Your task to perform on an android device: set an alarm Image 0: 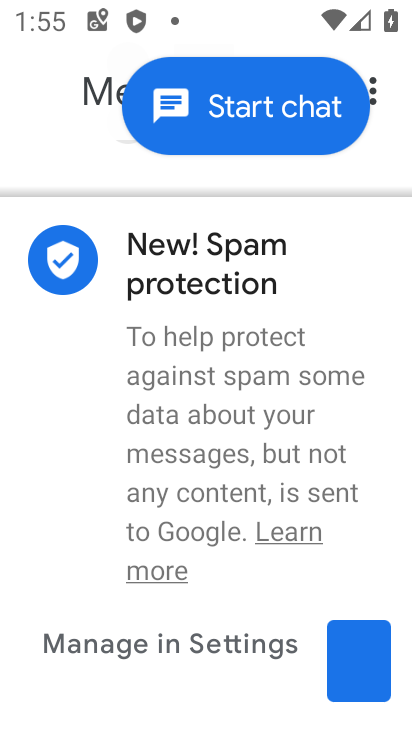
Step 0: press home button
Your task to perform on an android device: set an alarm Image 1: 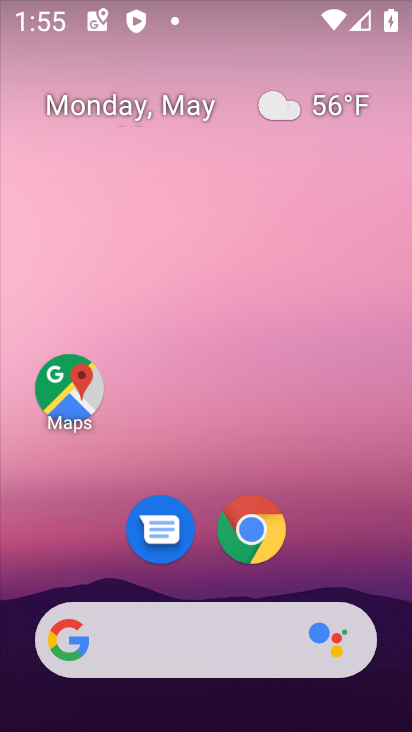
Step 1: drag from (333, 546) to (383, 77)
Your task to perform on an android device: set an alarm Image 2: 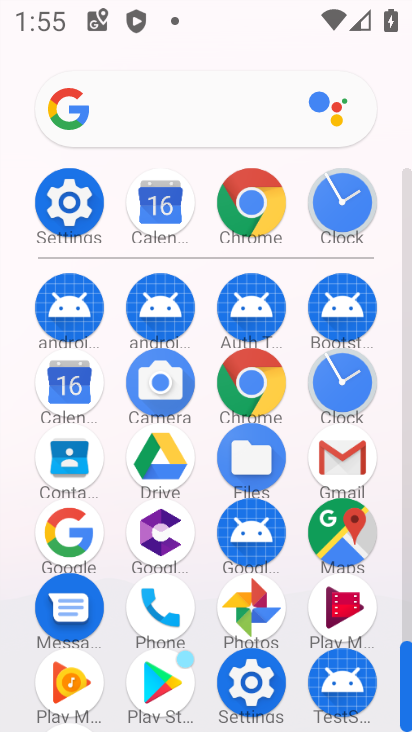
Step 2: click (348, 390)
Your task to perform on an android device: set an alarm Image 3: 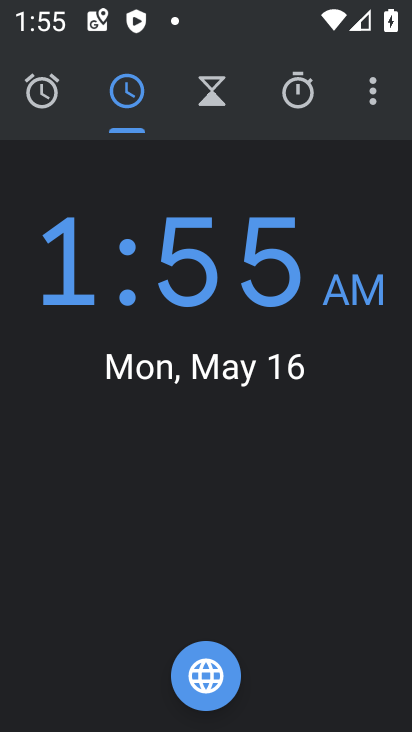
Step 3: click (49, 95)
Your task to perform on an android device: set an alarm Image 4: 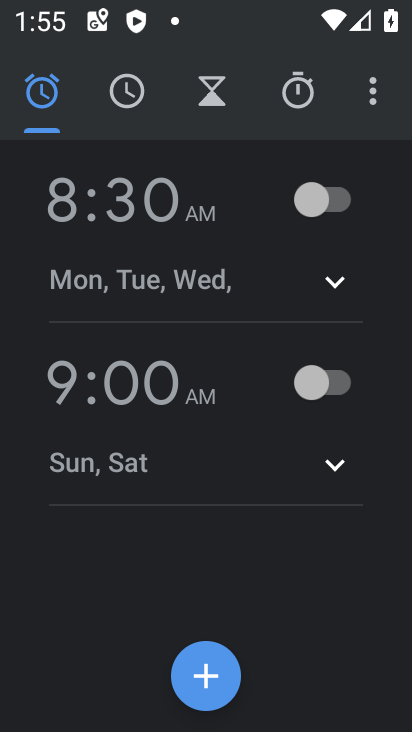
Step 4: click (220, 683)
Your task to perform on an android device: set an alarm Image 5: 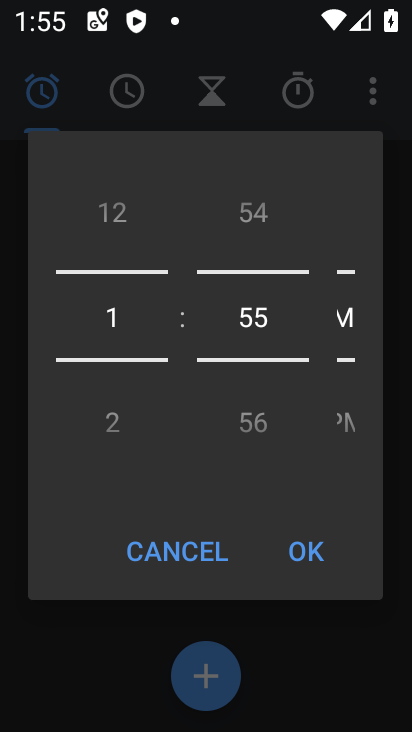
Step 5: click (310, 557)
Your task to perform on an android device: set an alarm Image 6: 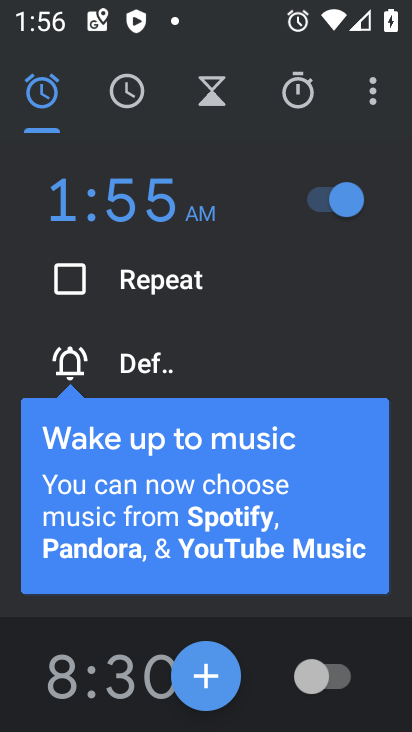
Step 6: task complete